Your task to perform on an android device: Search for Italian restaurants on Maps Image 0: 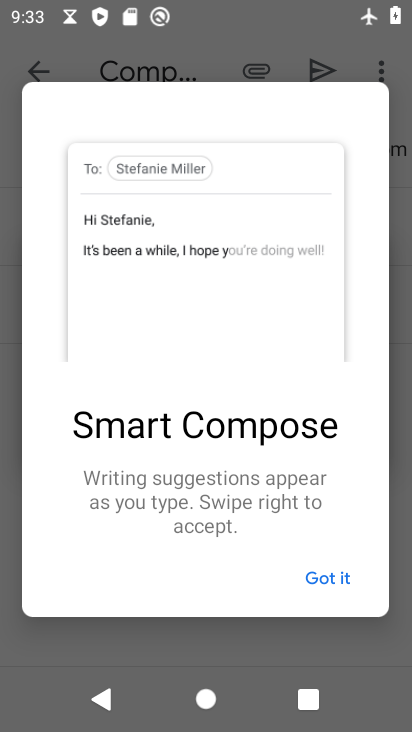
Step 0: press home button
Your task to perform on an android device: Search for Italian restaurants on Maps Image 1: 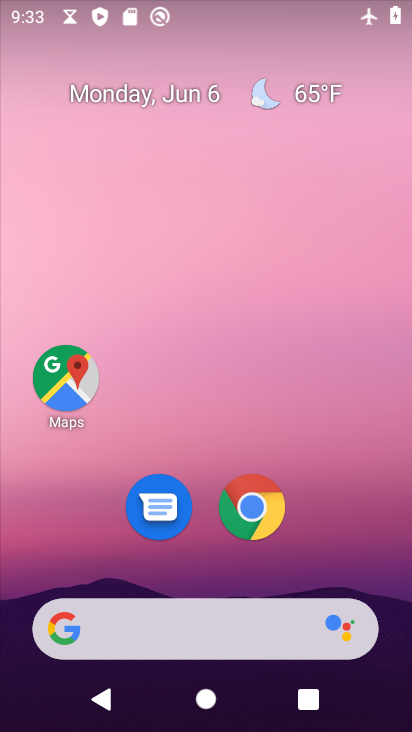
Step 1: click (77, 375)
Your task to perform on an android device: Search for Italian restaurants on Maps Image 2: 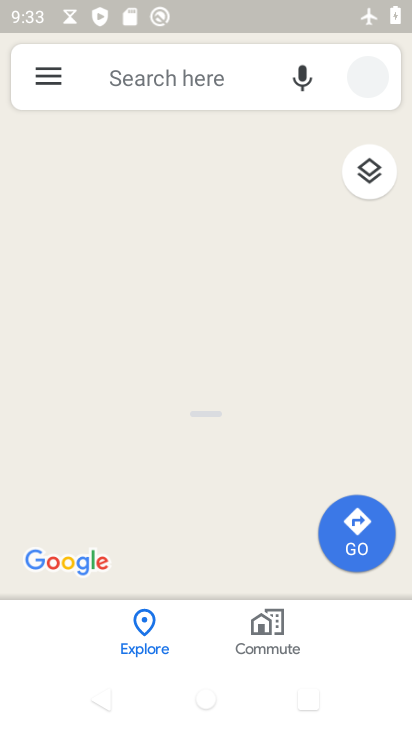
Step 2: click (168, 71)
Your task to perform on an android device: Search for Italian restaurants on Maps Image 3: 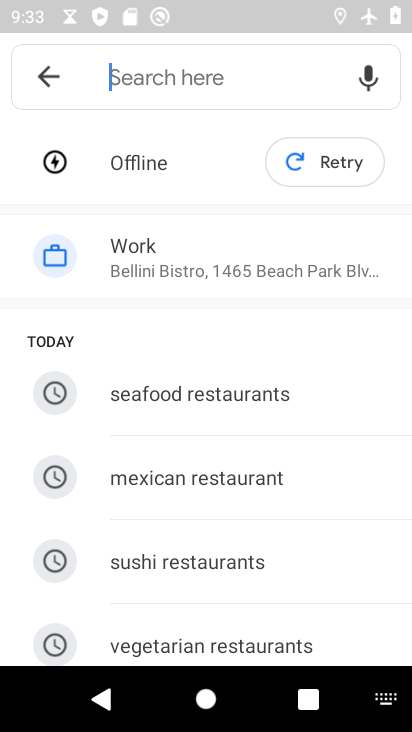
Step 3: drag from (211, 565) to (278, 303)
Your task to perform on an android device: Search for Italian restaurants on Maps Image 4: 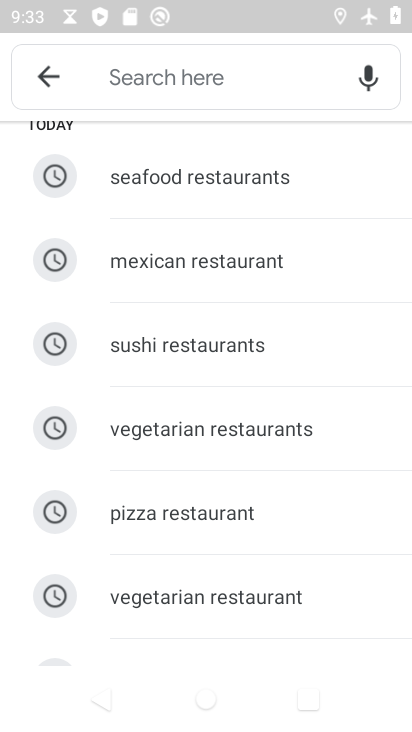
Step 4: drag from (187, 546) to (229, 275)
Your task to perform on an android device: Search for Italian restaurants on Maps Image 5: 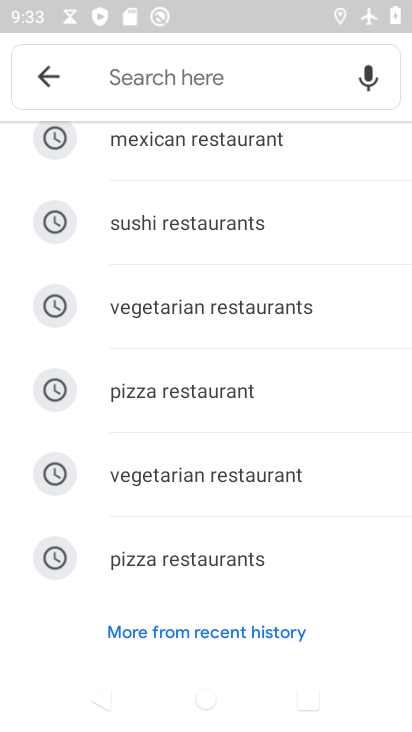
Step 5: click (164, 74)
Your task to perform on an android device: Search for Italian restaurants on Maps Image 6: 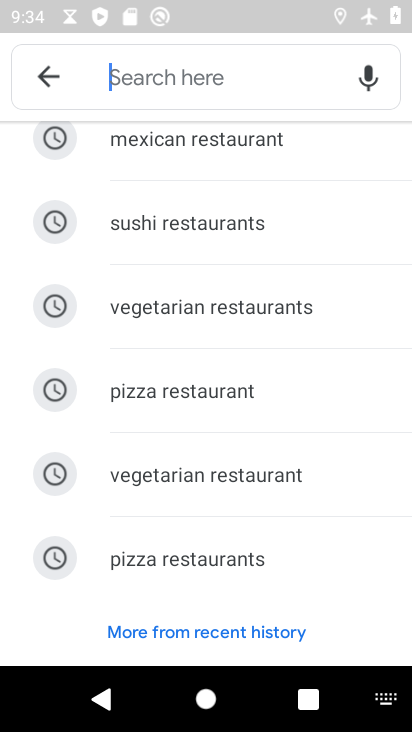
Step 6: type "What is the recent news?"
Your task to perform on an android device: Search for Italian restaurants on Maps Image 7: 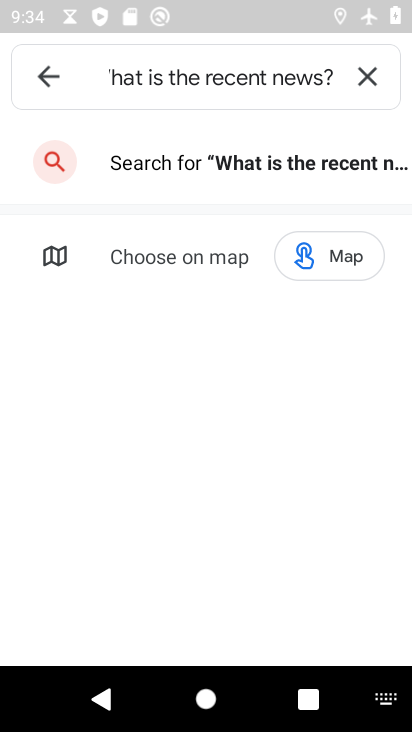
Step 7: click (357, 67)
Your task to perform on an android device: Search for Italian restaurants on Maps Image 8: 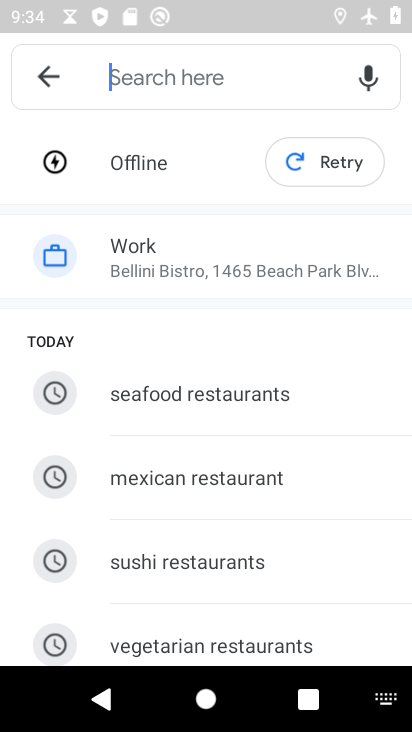
Step 8: click (169, 67)
Your task to perform on an android device: Search for Italian restaurants on Maps Image 9: 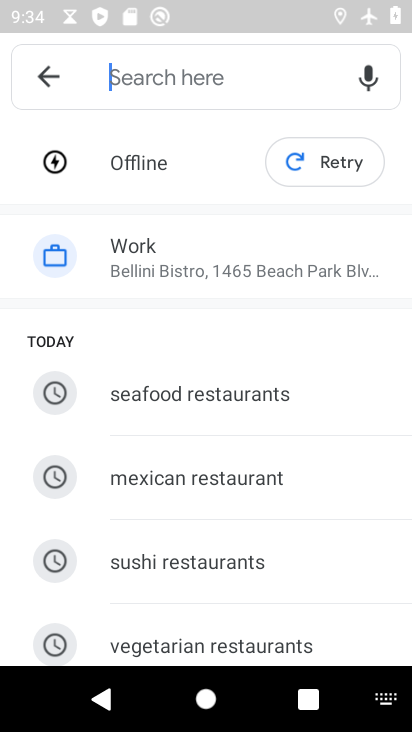
Step 9: type "Italian restaurants"
Your task to perform on an android device: Search for Italian restaurants on Maps Image 10: 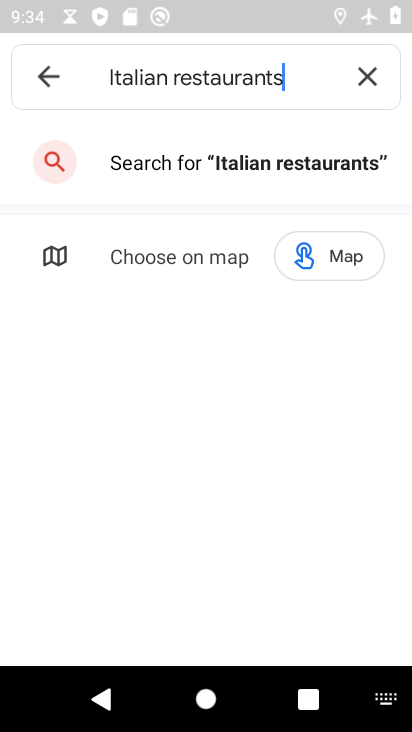
Step 10: click (248, 174)
Your task to perform on an android device: Search for Italian restaurants on Maps Image 11: 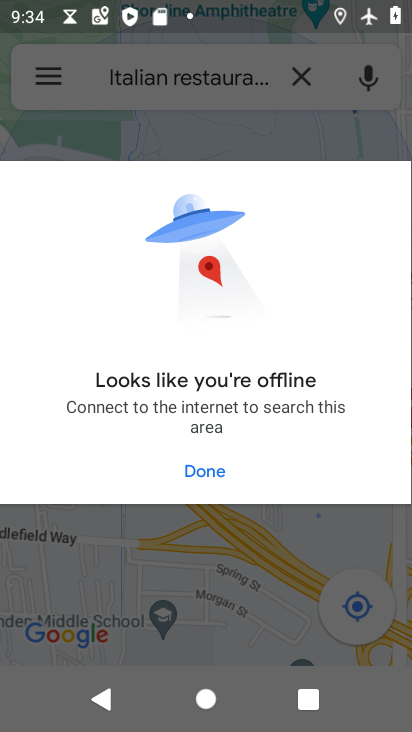
Step 11: click (207, 466)
Your task to perform on an android device: Search for Italian restaurants on Maps Image 12: 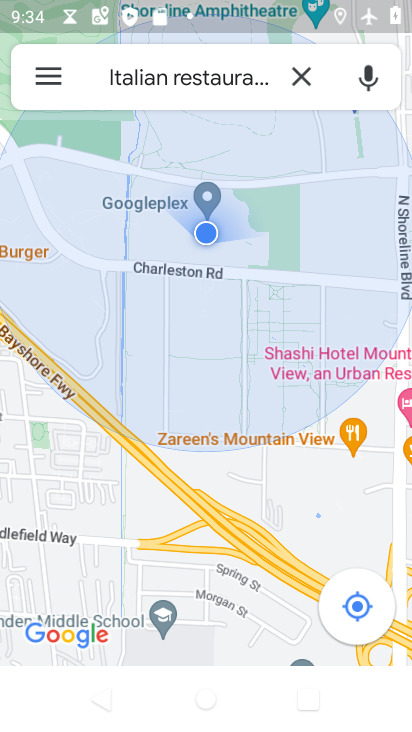
Step 12: task complete